Your task to perform on an android device: Go to eBay Image 0: 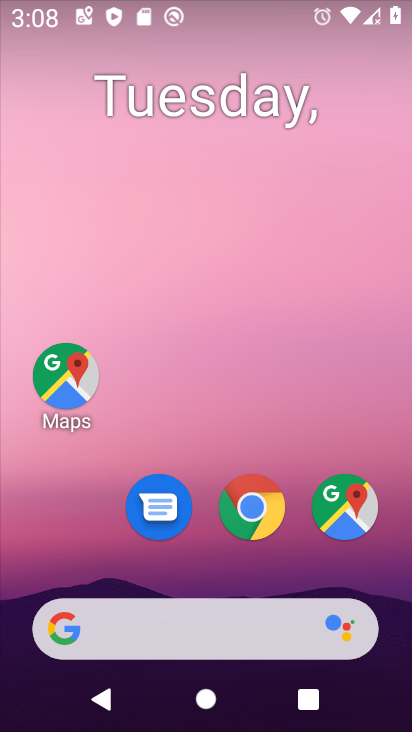
Step 0: click (250, 517)
Your task to perform on an android device: Go to eBay Image 1: 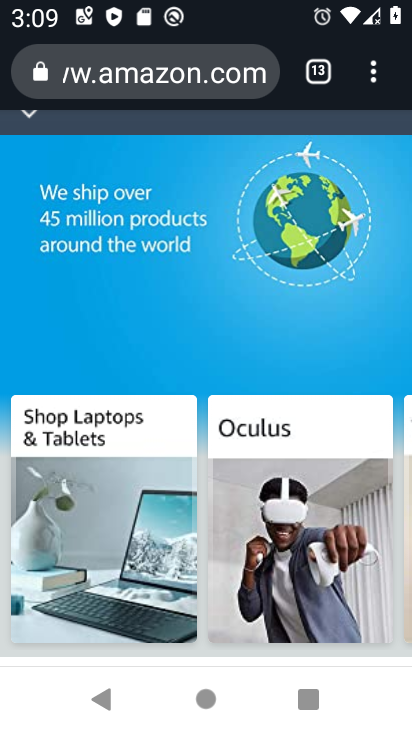
Step 1: click (365, 60)
Your task to perform on an android device: Go to eBay Image 2: 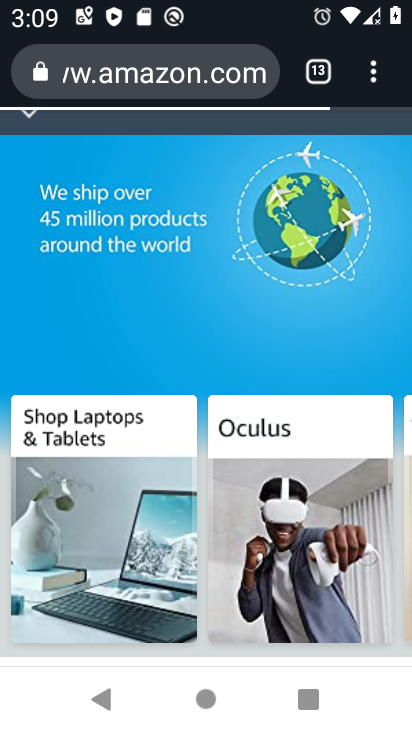
Step 2: click (365, 77)
Your task to perform on an android device: Go to eBay Image 3: 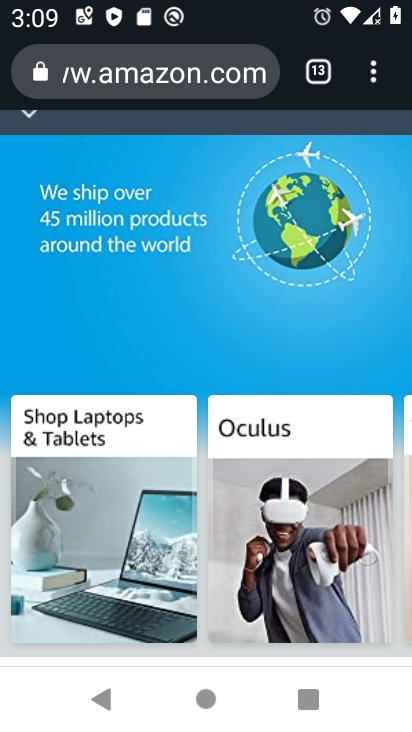
Step 3: click (369, 66)
Your task to perform on an android device: Go to eBay Image 4: 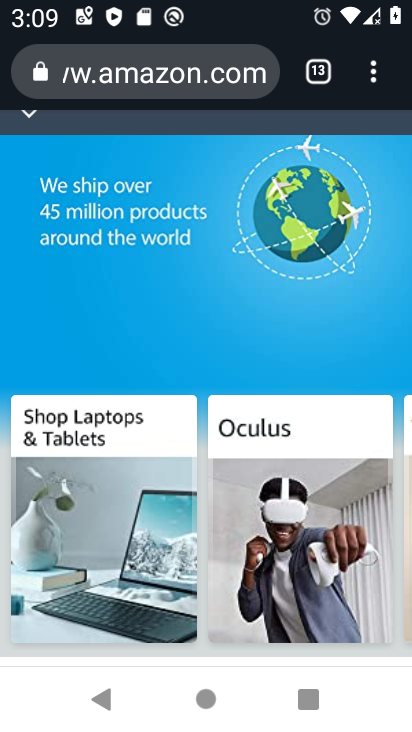
Step 4: click (374, 69)
Your task to perform on an android device: Go to eBay Image 5: 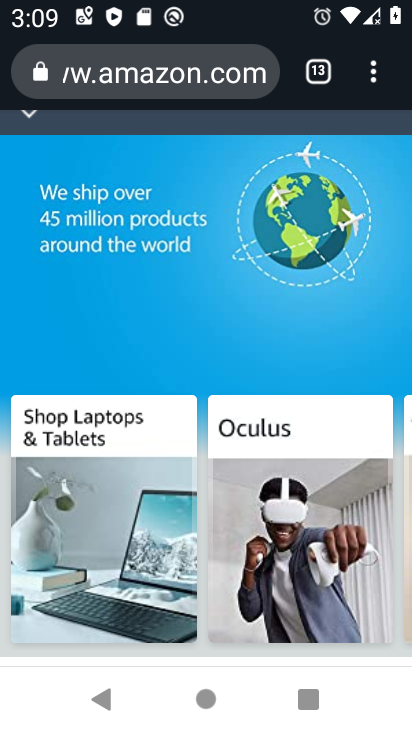
Step 5: click (375, 65)
Your task to perform on an android device: Go to eBay Image 6: 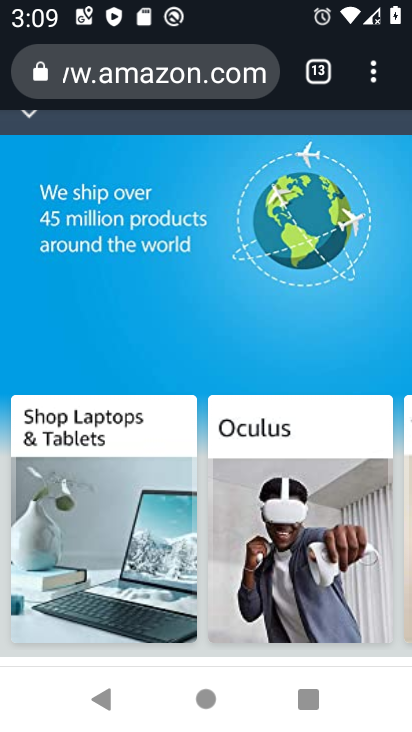
Step 6: click (380, 65)
Your task to perform on an android device: Go to eBay Image 7: 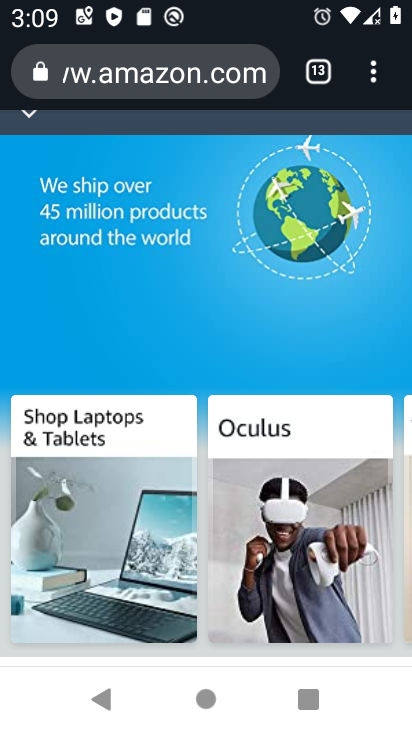
Step 7: click (380, 67)
Your task to perform on an android device: Go to eBay Image 8: 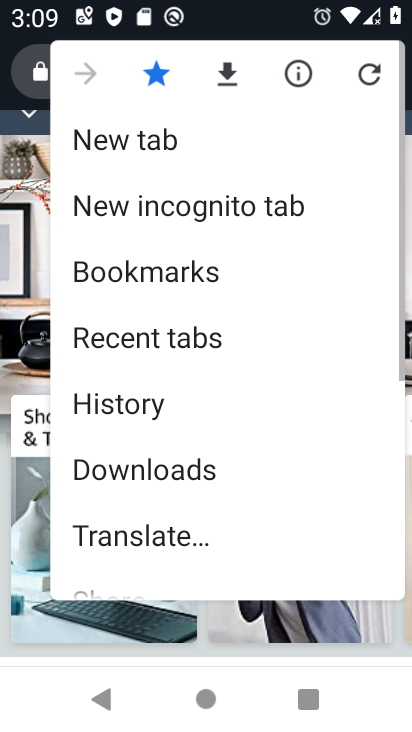
Step 8: click (168, 126)
Your task to perform on an android device: Go to eBay Image 9: 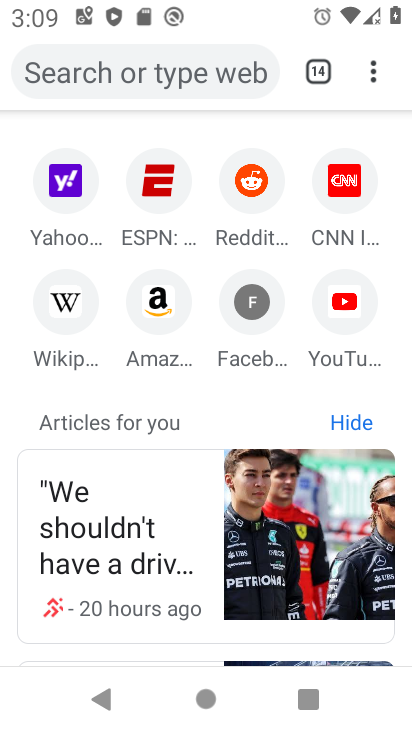
Step 9: click (162, 64)
Your task to perform on an android device: Go to eBay Image 10: 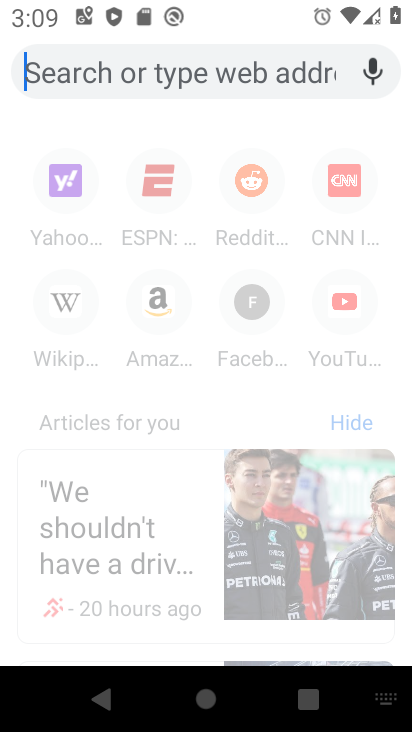
Step 10: type "ebay"
Your task to perform on an android device: Go to eBay Image 11: 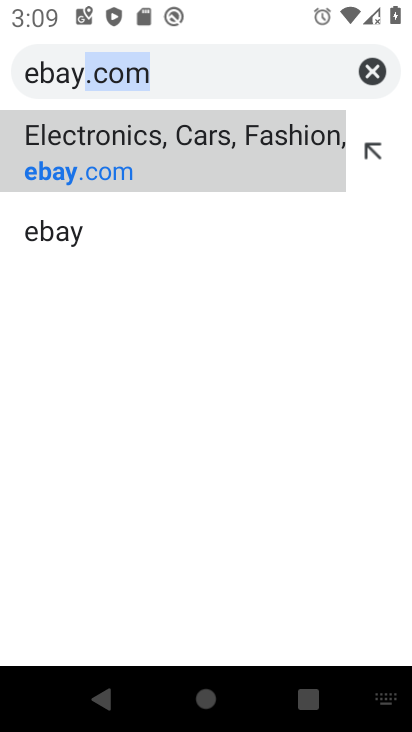
Step 11: click (44, 228)
Your task to perform on an android device: Go to eBay Image 12: 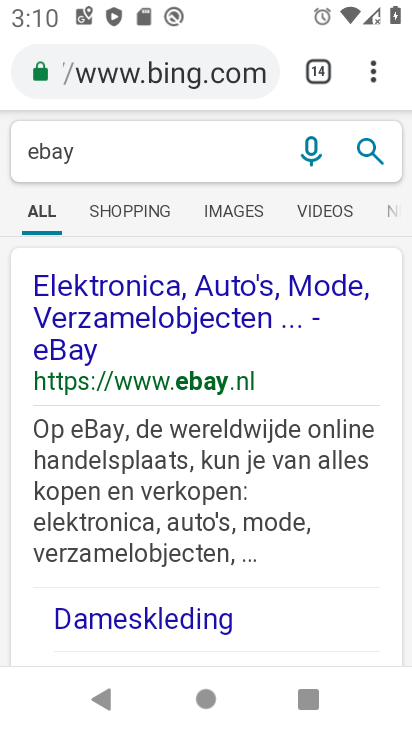
Step 12: task complete